Your task to perform on an android device: What's on my calendar today? Image 0: 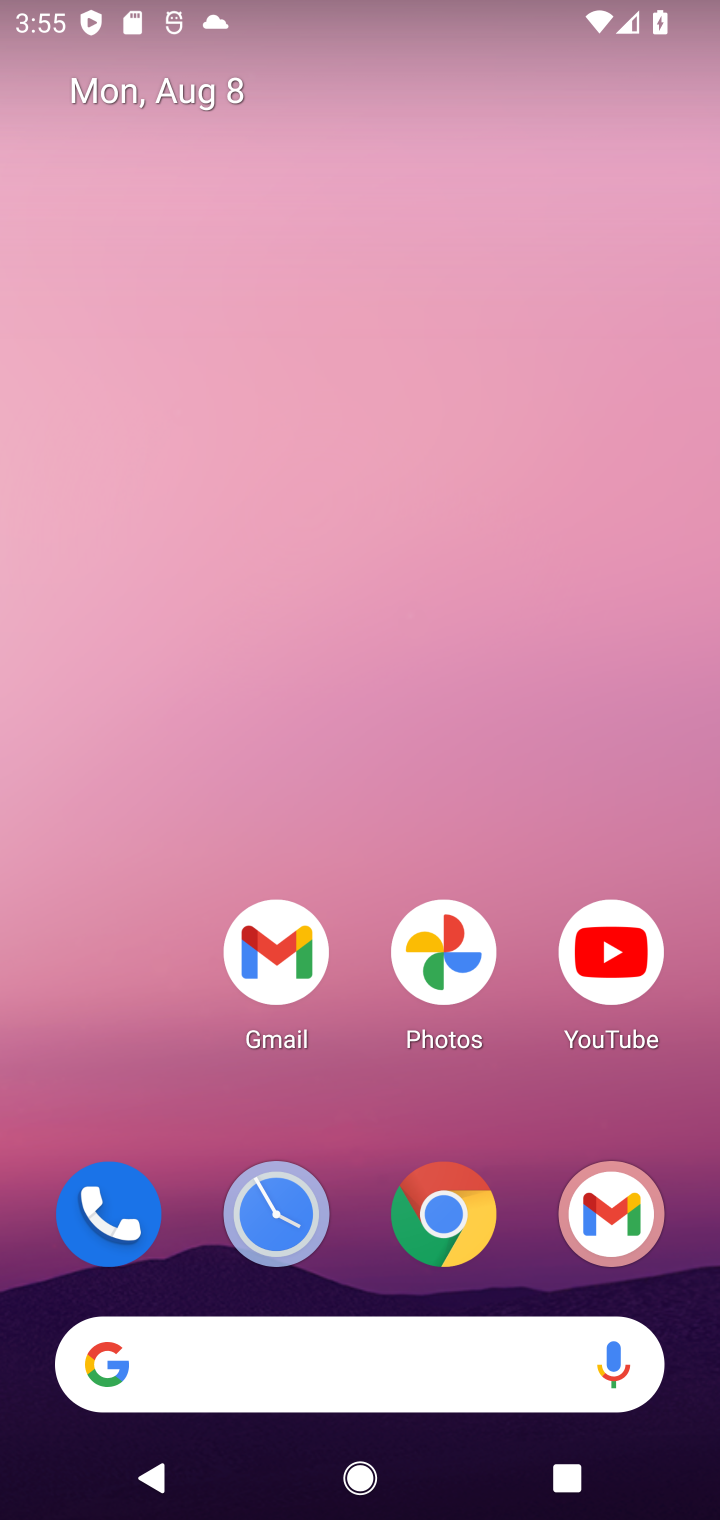
Step 0: drag from (335, 1082) to (392, 6)
Your task to perform on an android device: What's on my calendar today? Image 1: 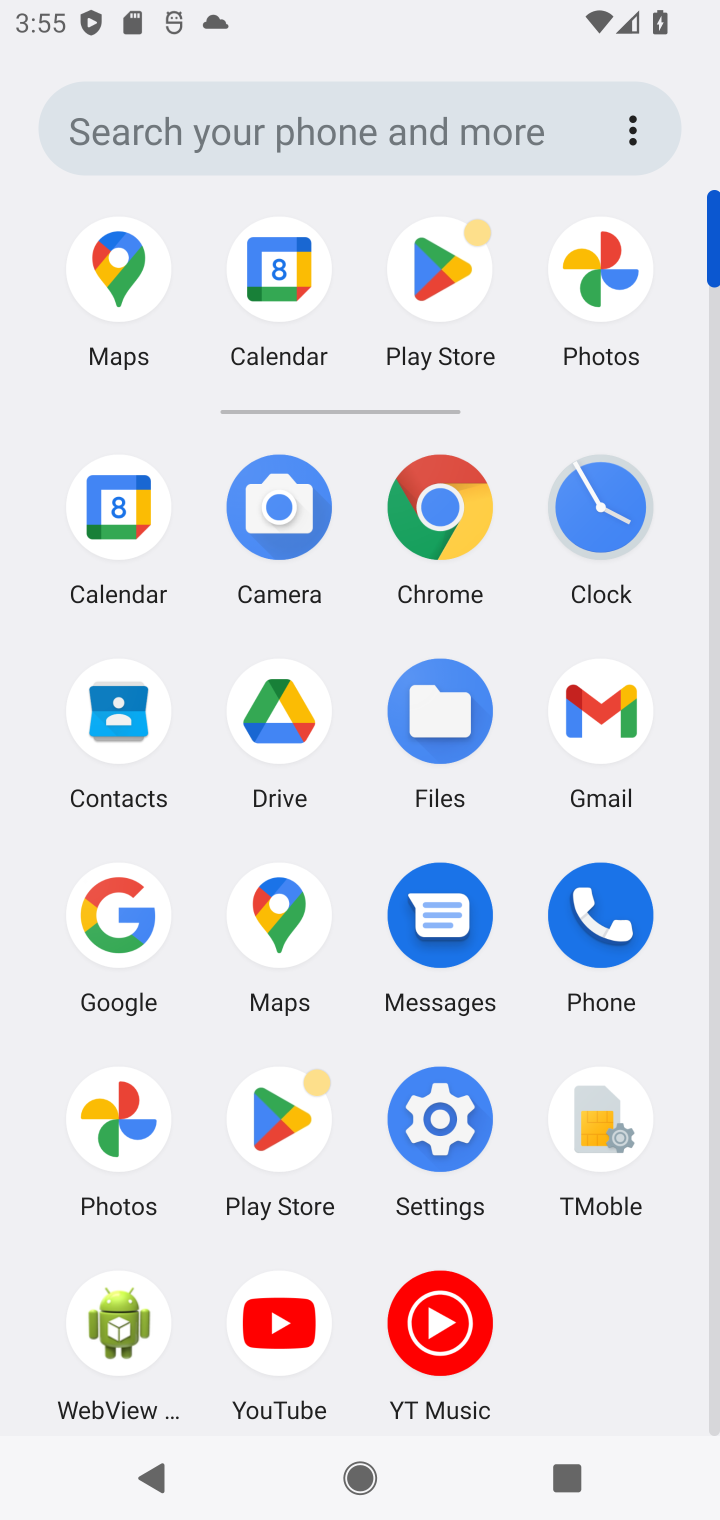
Step 1: click (118, 489)
Your task to perform on an android device: What's on my calendar today? Image 2: 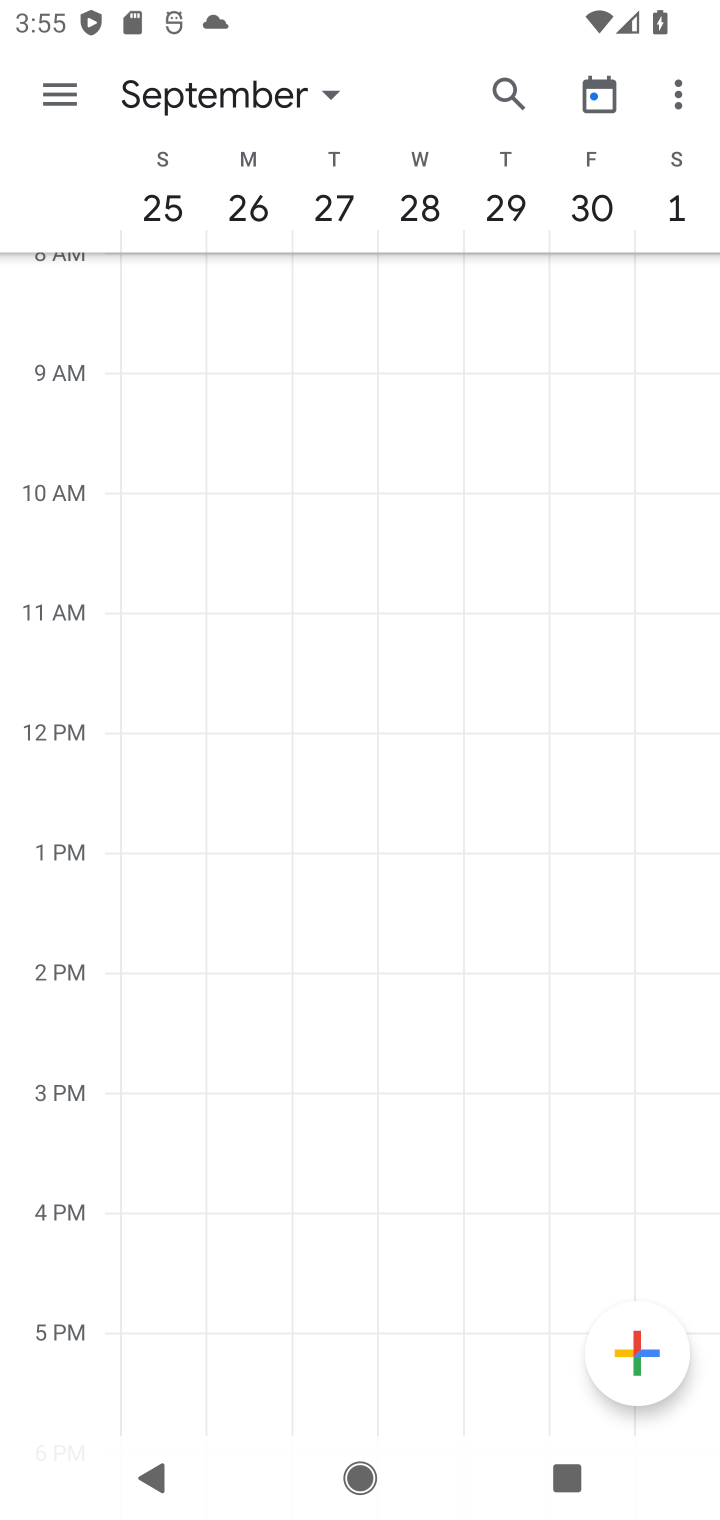
Step 2: click (342, 98)
Your task to perform on an android device: What's on my calendar today? Image 3: 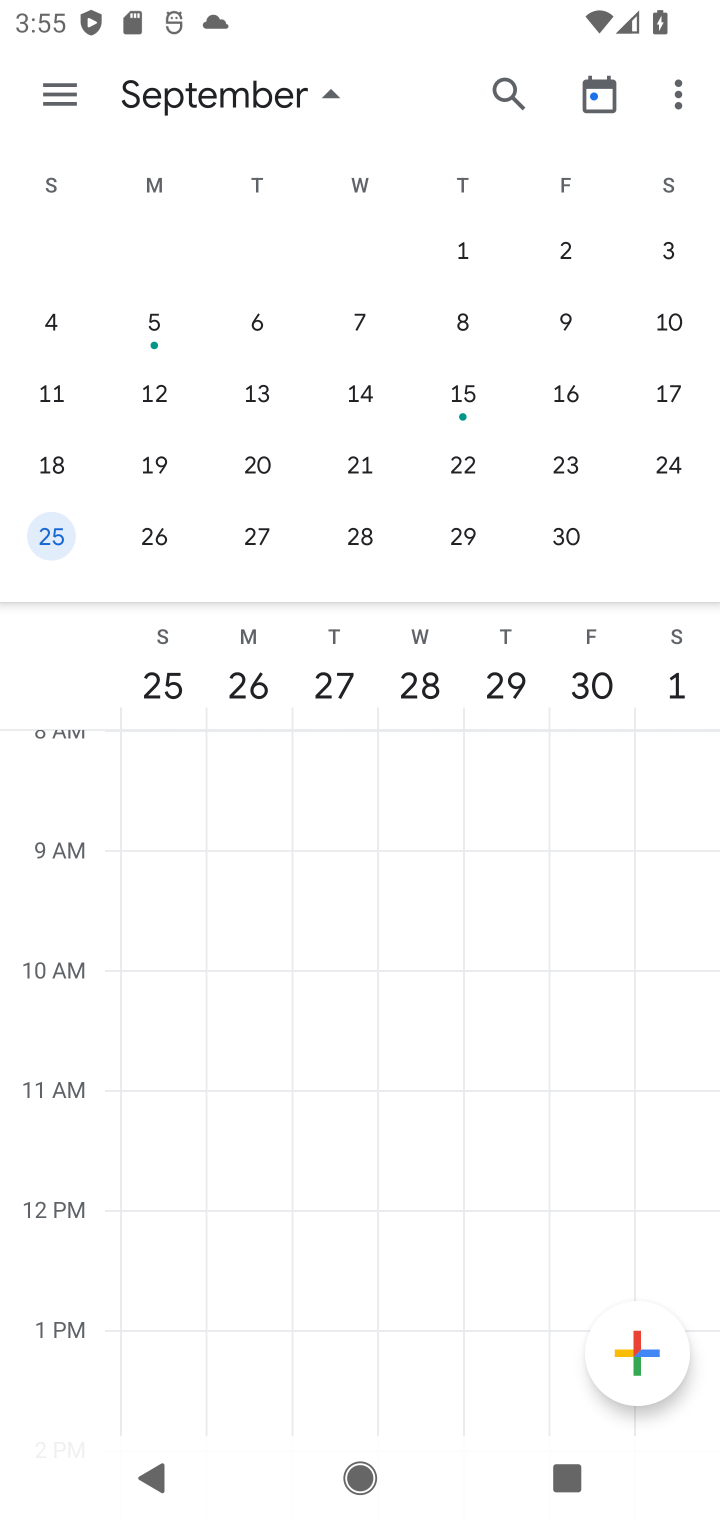
Step 3: drag from (84, 394) to (571, 382)
Your task to perform on an android device: What's on my calendar today? Image 4: 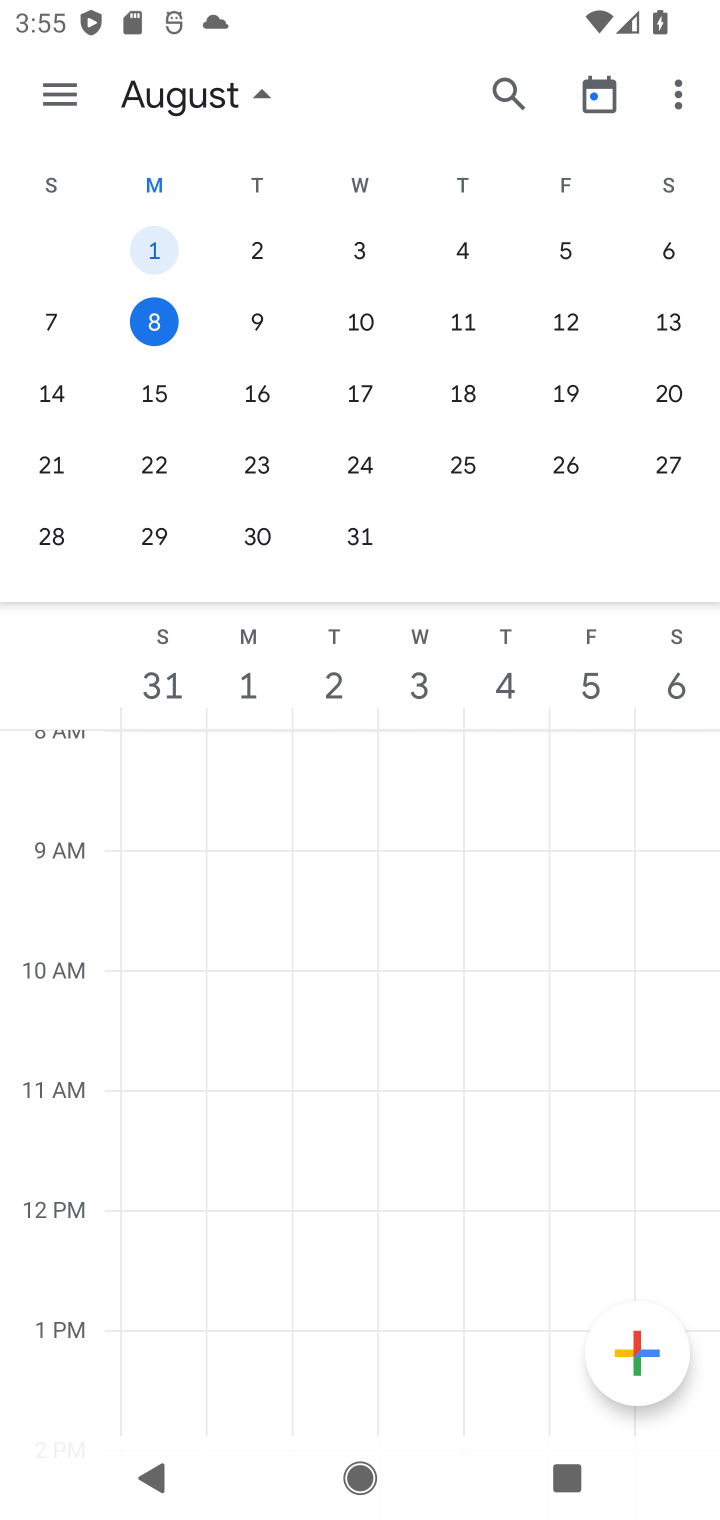
Step 4: click (146, 314)
Your task to perform on an android device: What's on my calendar today? Image 5: 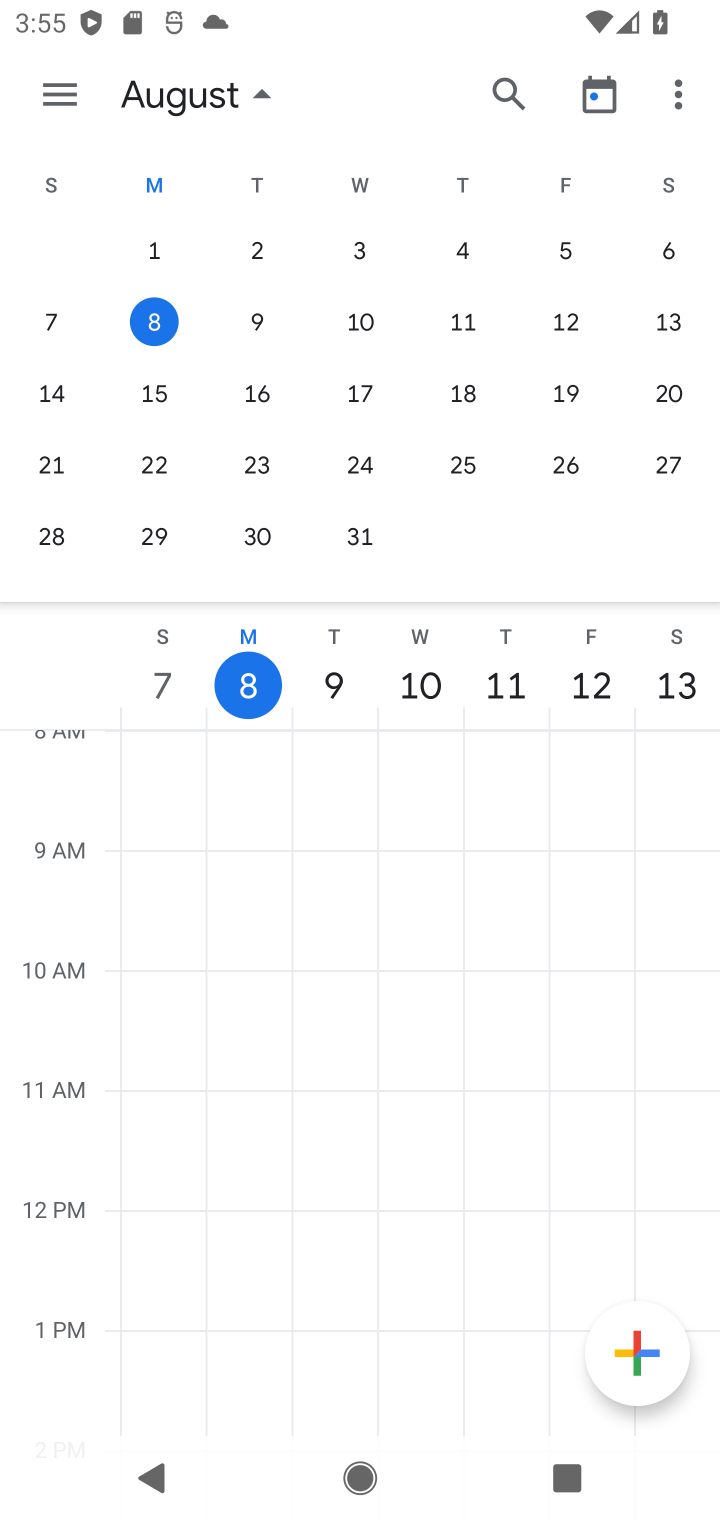
Step 5: click (148, 312)
Your task to perform on an android device: What's on my calendar today? Image 6: 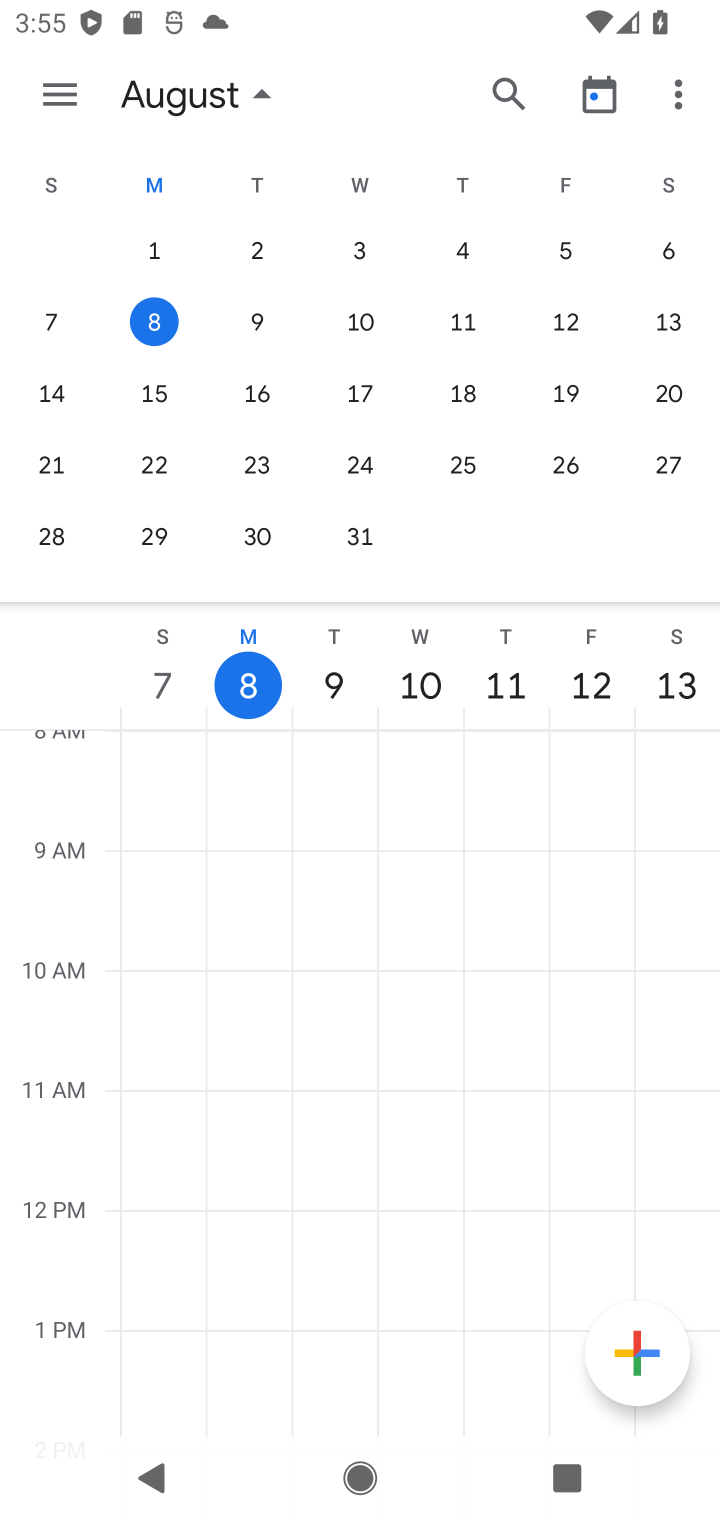
Step 6: click (225, 683)
Your task to perform on an android device: What's on my calendar today? Image 7: 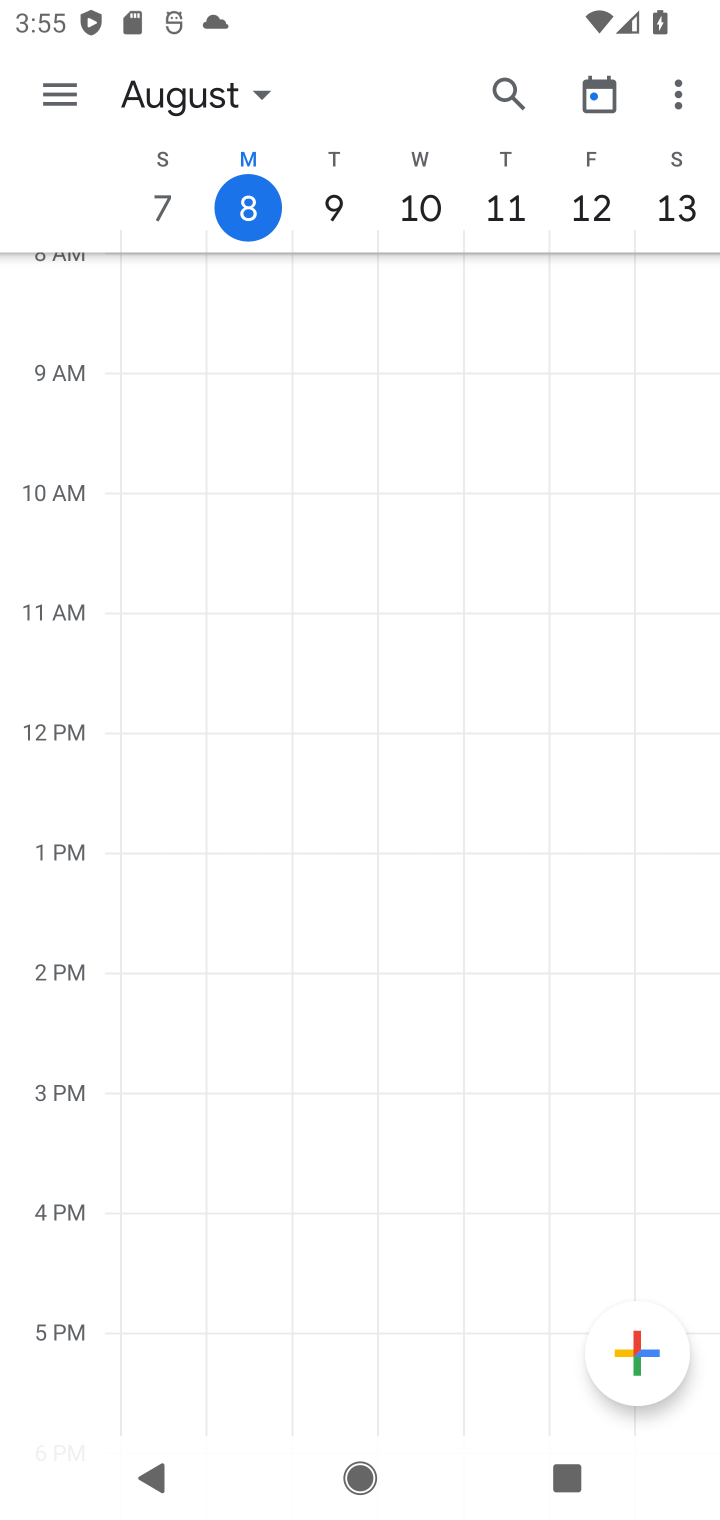
Step 7: task complete